Your task to perform on an android device: change the clock display to analog Image 0: 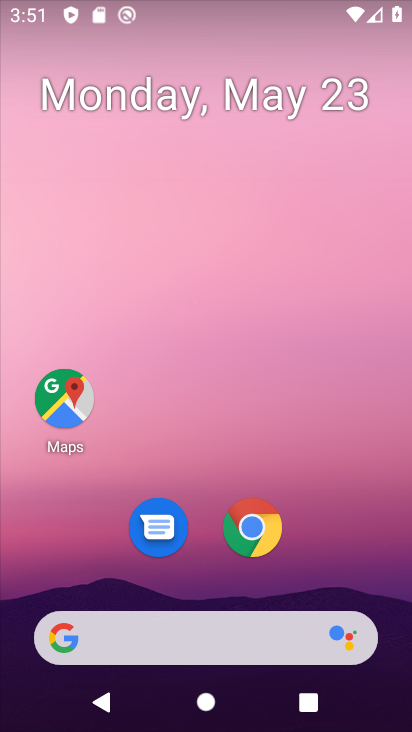
Step 0: press home button
Your task to perform on an android device: change the clock display to analog Image 1: 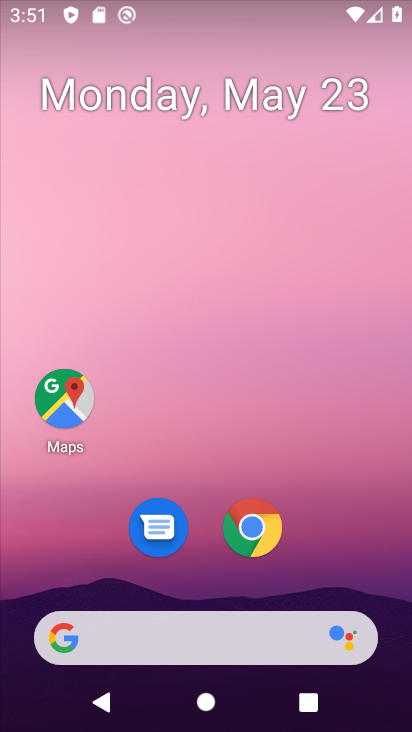
Step 1: drag from (267, 578) to (333, 28)
Your task to perform on an android device: change the clock display to analog Image 2: 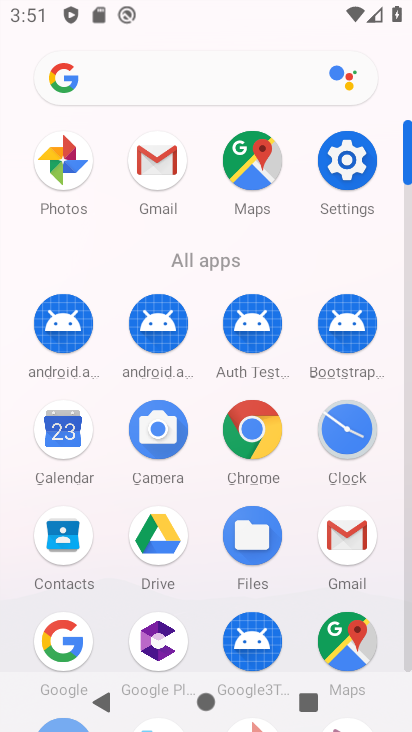
Step 2: click (324, 432)
Your task to perform on an android device: change the clock display to analog Image 3: 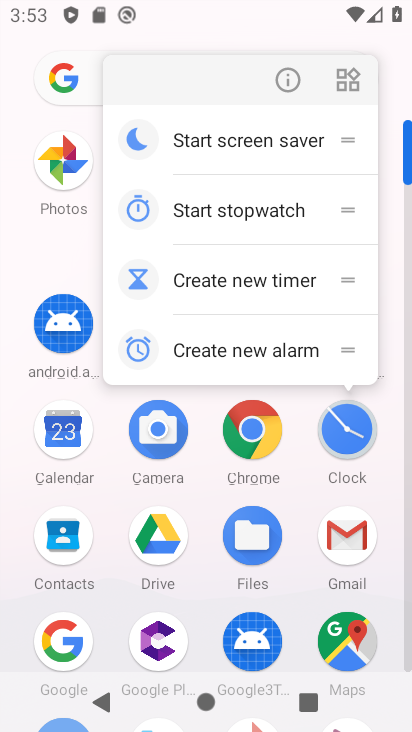
Step 3: click (22, 585)
Your task to perform on an android device: change the clock display to analog Image 4: 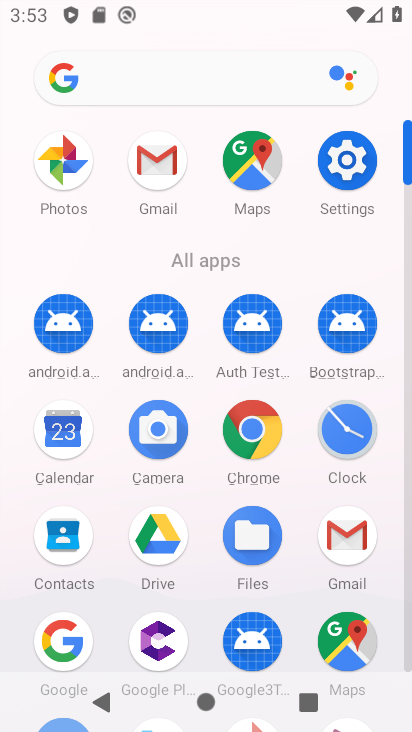
Step 4: click (364, 446)
Your task to perform on an android device: change the clock display to analog Image 5: 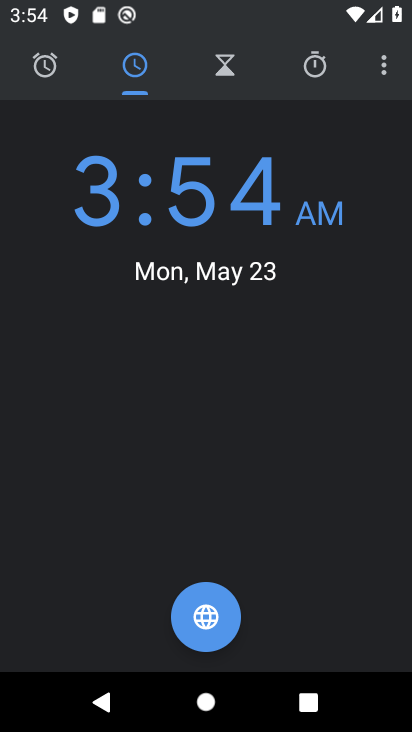
Step 5: click (384, 70)
Your task to perform on an android device: change the clock display to analog Image 6: 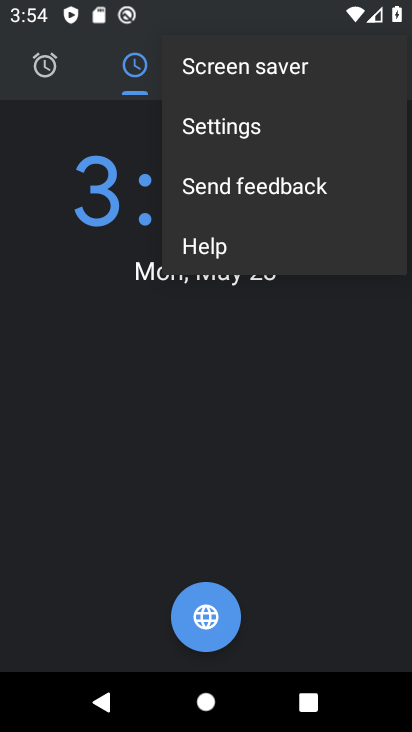
Step 6: click (263, 144)
Your task to perform on an android device: change the clock display to analog Image 7: 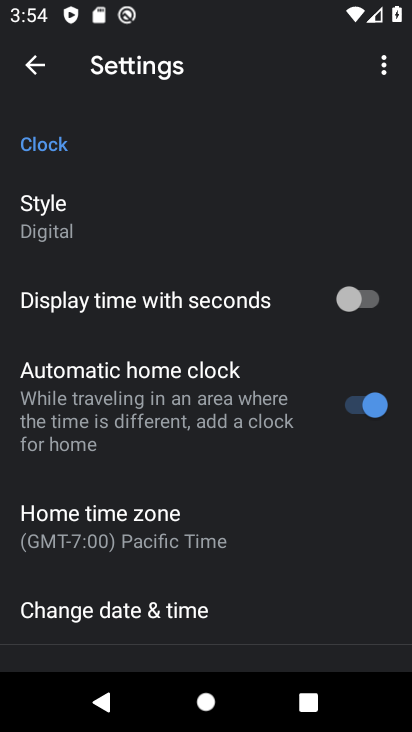
Step 7: click (39, 209)
Your task to perform on an android device: change the clock display to analog Image 8: 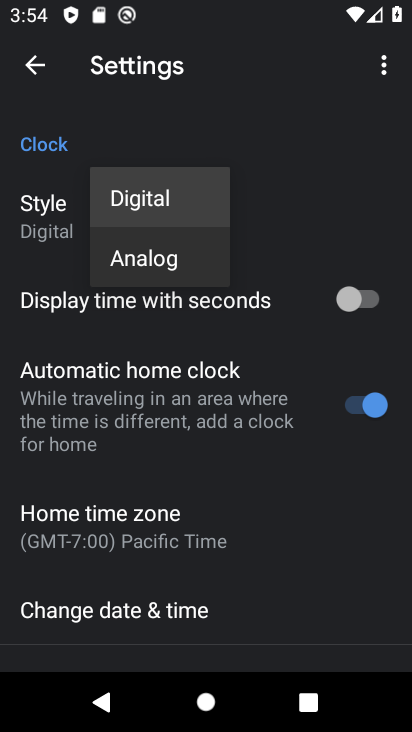
Step 8: click (152, 259)
Your task to perform on an android device: change the clock display to analog Image 9: 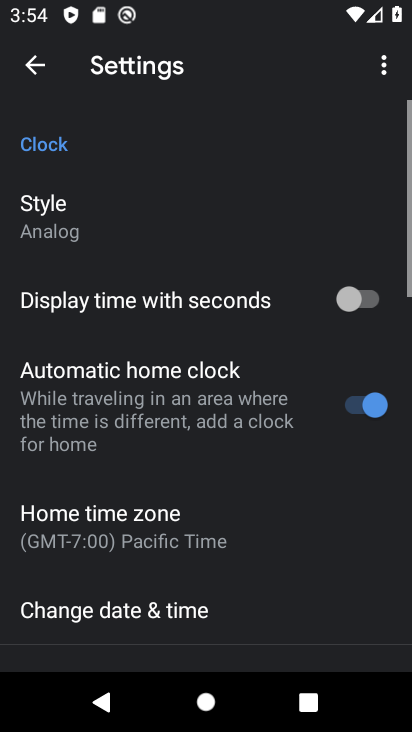
Step 9: task complete